Your task to perform on an android device: Open Yahoo.com Image 0: 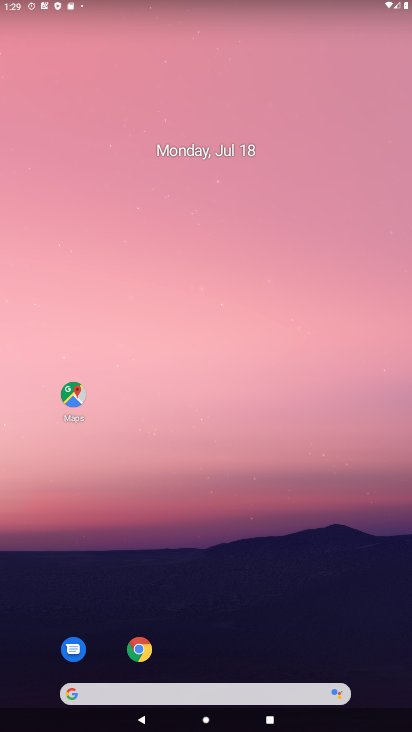
Step 0: click (145, 660)
Your task to perform on an android device: Open Yahoo.com Image 1: 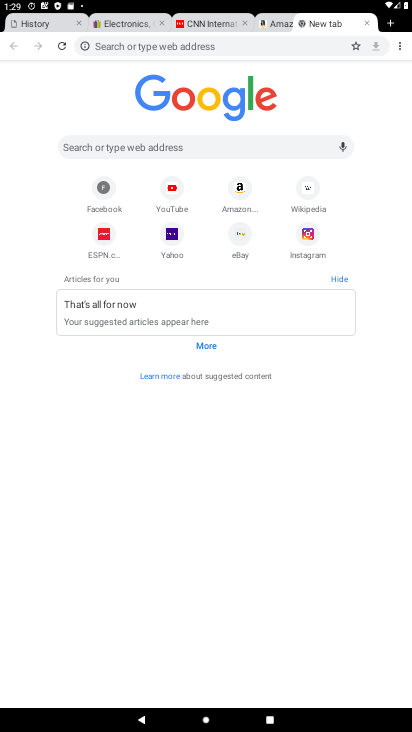
Step 1: click (170, 243)
Your task to perform on an android device: Open Yahoo.com Image 2: 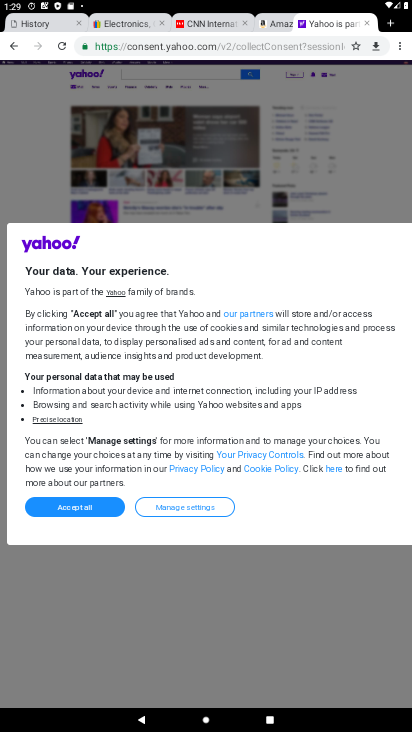
Step 2: click (69, 510)
Your task to perform on an android device: Open Yahoo.com Image 3: 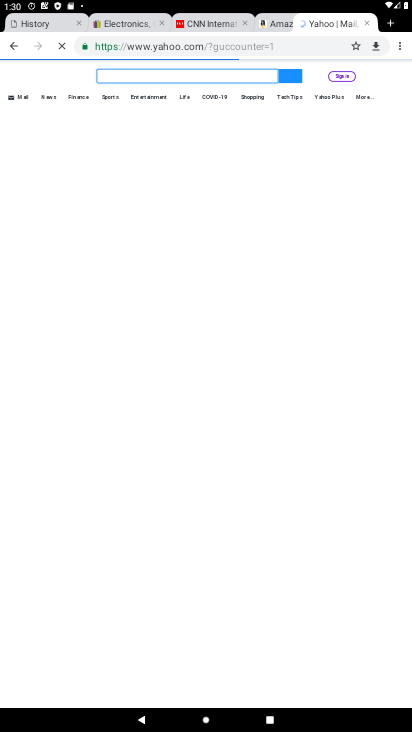
Step 3: task complete